Your task to perform on an android device: uninstall "Gmail" Image 0: 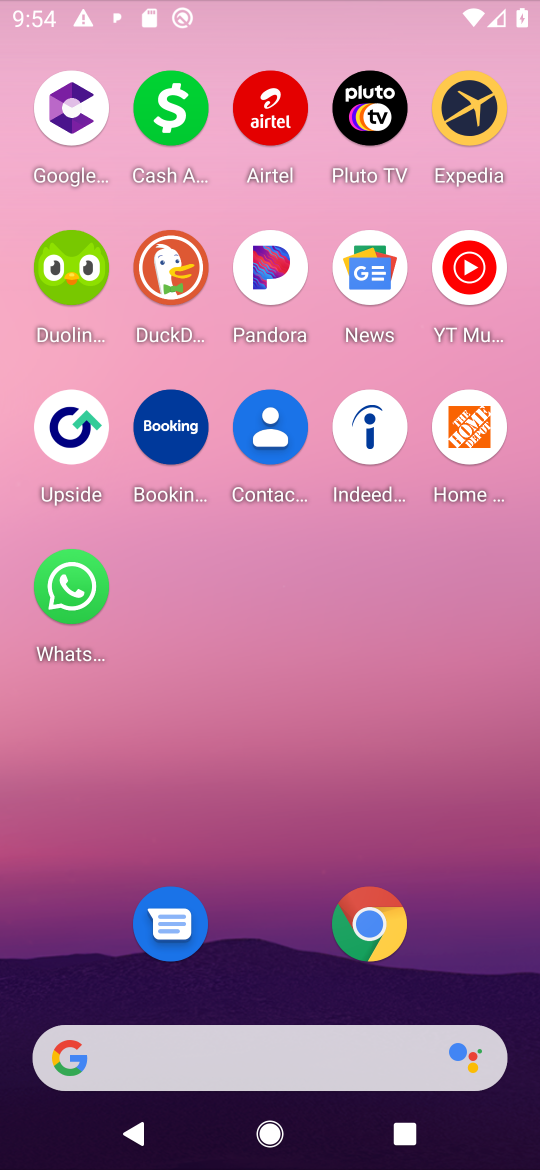
Step 0: press home button
Your task to perform on an android device: uninstall "Gmail" Image 1: 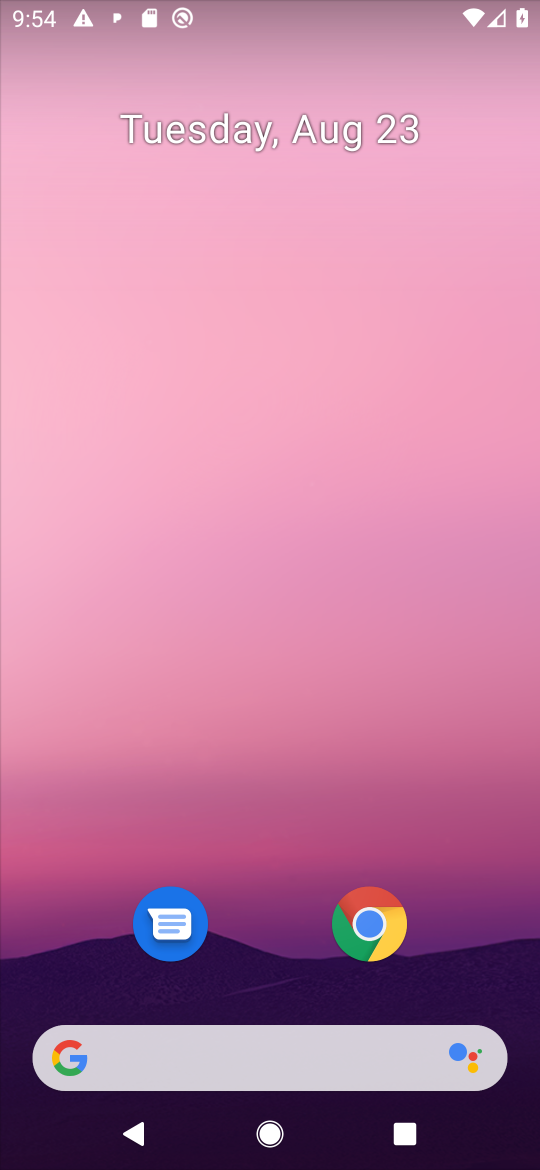
Step 1: drag from (501, 995) to (505, 82)
Your task to perform on an android device: uninstall "Gmail" Image 2: 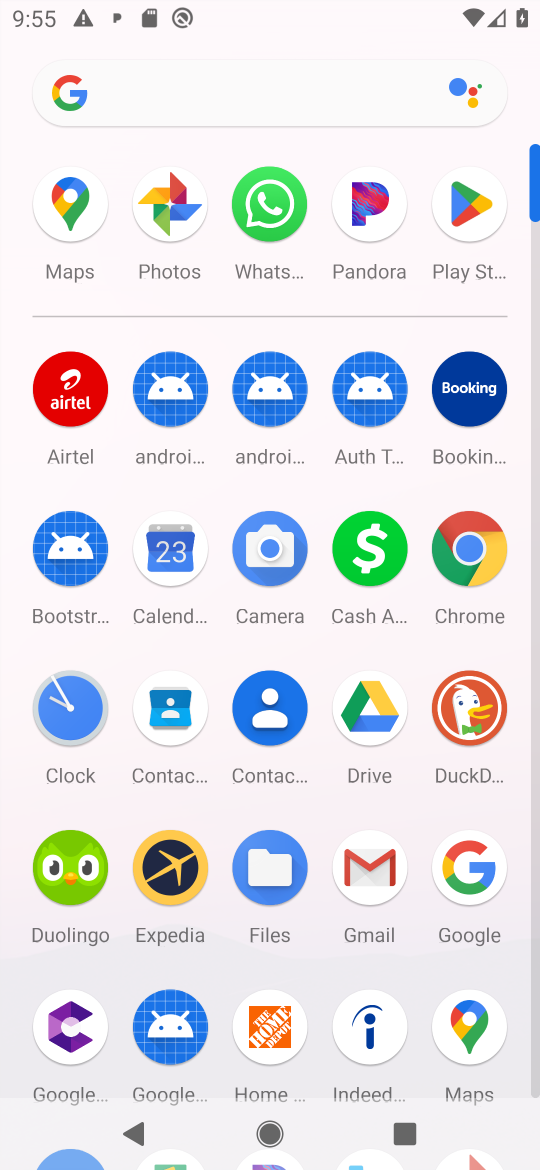
Step 2: click (480, 198)
Your task to perform on an android device: uninstall "Gmail" Image 3: 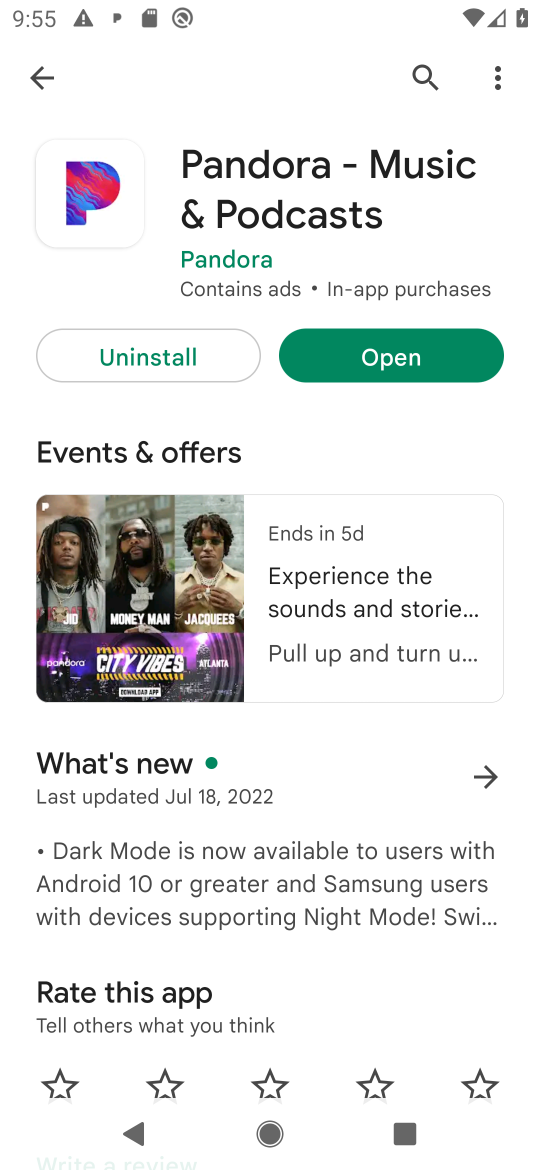
Step 3: press back button
Your task to perform on an android device: uninstall "Gmail" Image 4: 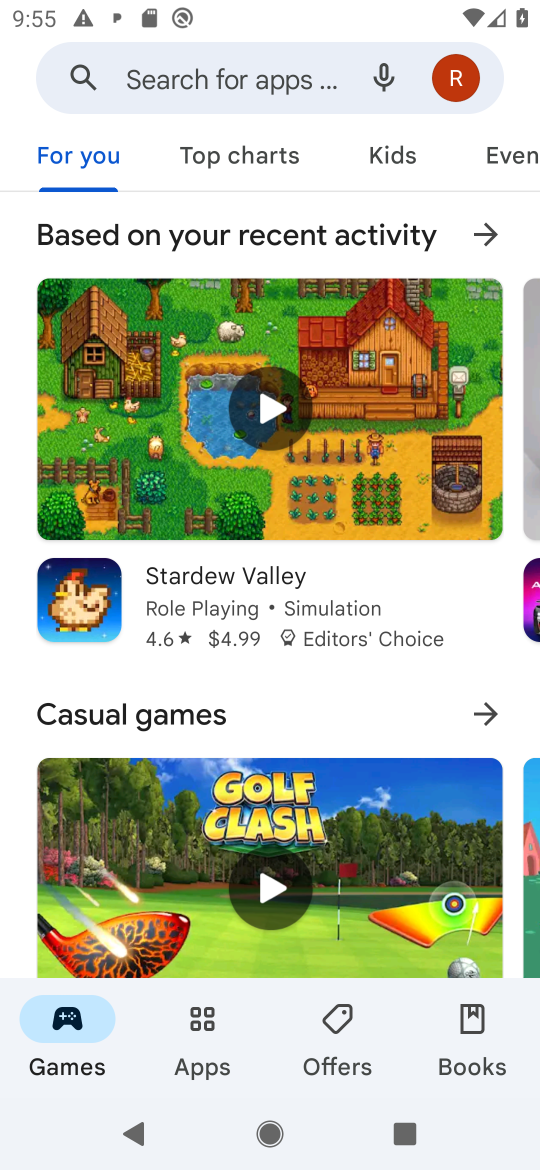
Step 4: click (221, 76)
Your task to perform on an android device: uninstall "Gmail" Image 5: 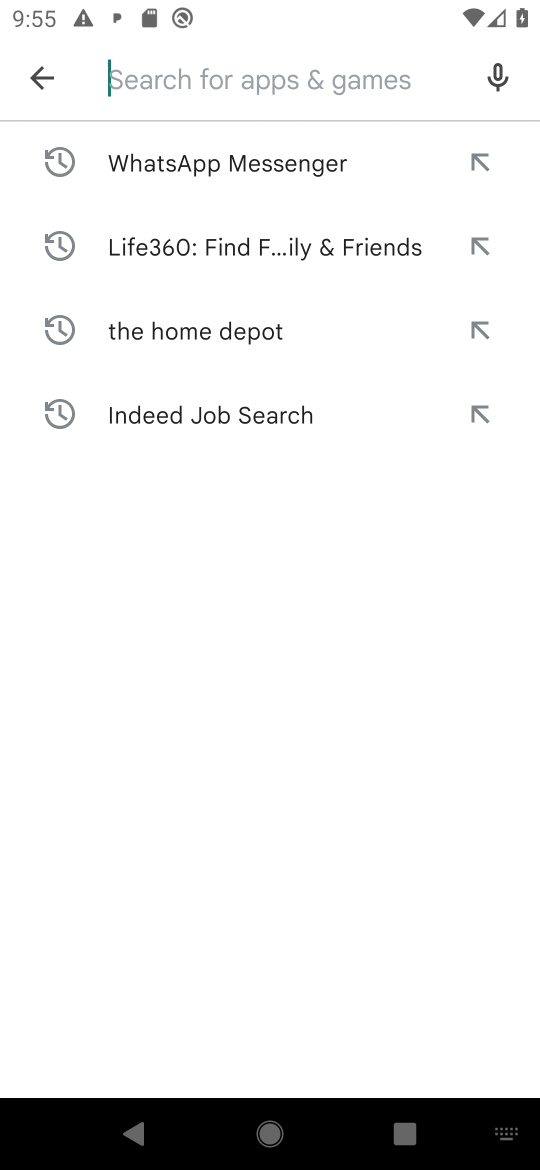
Step 5: type "gmail"
Your task to perform on an android device: uninstall "Gmail" Image 6: 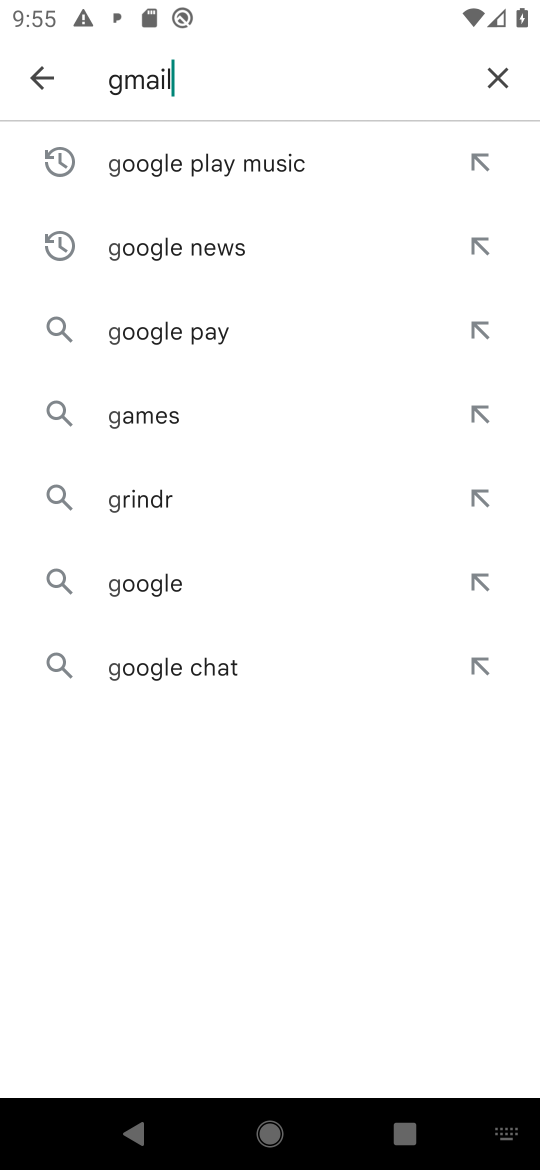
Step 6: press enter
Your task to perform on an android device: uninstall "Gmail" Image 7: 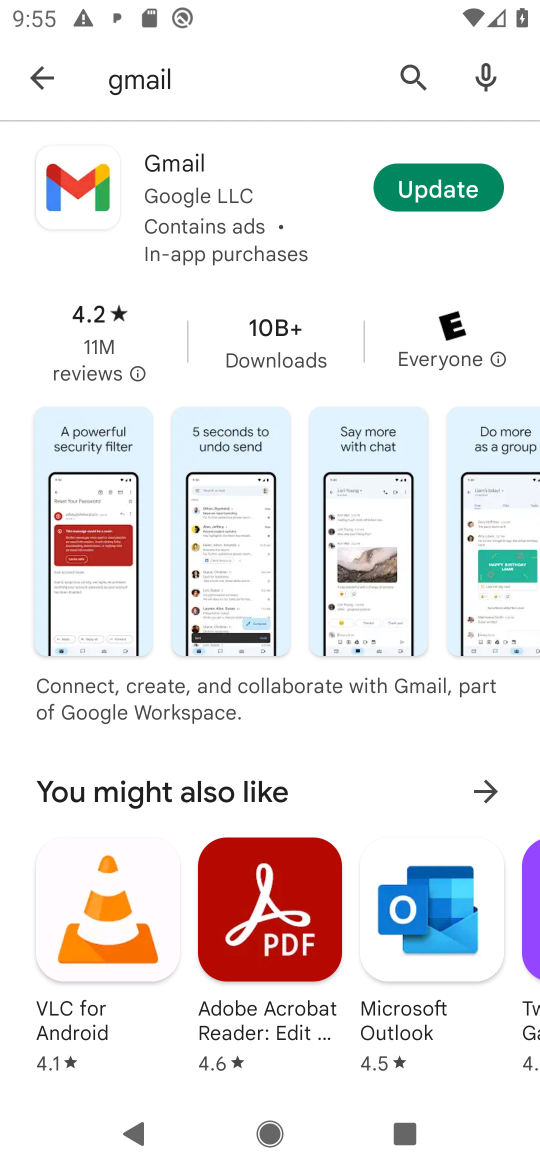
Step 7: task complete